Your task to perform on an android device: turn on sleep mode Image 0: 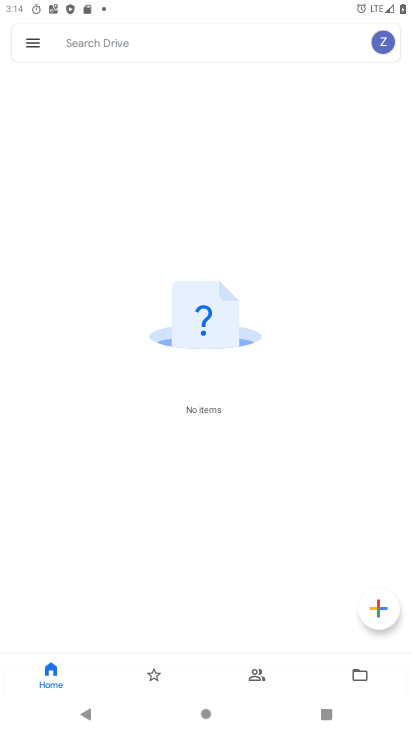
Step 0: press home button
Your task to perform on an android device: turn on sleep mode Image 1: 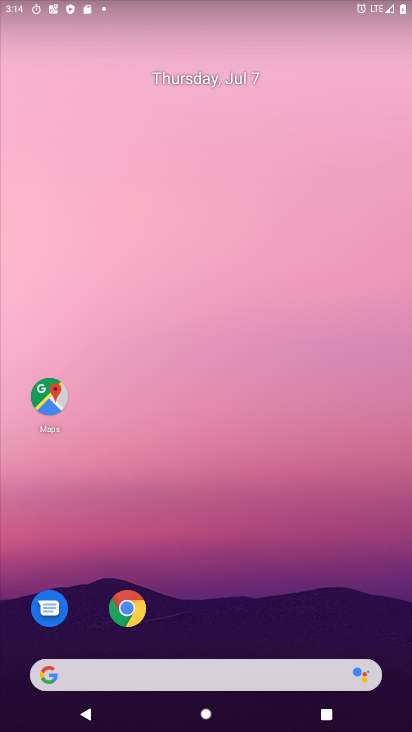
Step 1: drag from (252, 728) to (207, 145)
Your task to perform on an android device: turn on sleep mode Image 2: 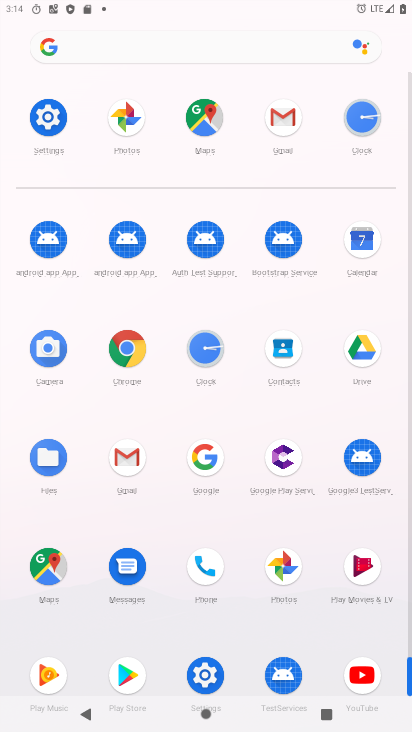
Step 2: click (47, 112)
Your task to perform on an android device: turn on sleep mode Image 3: 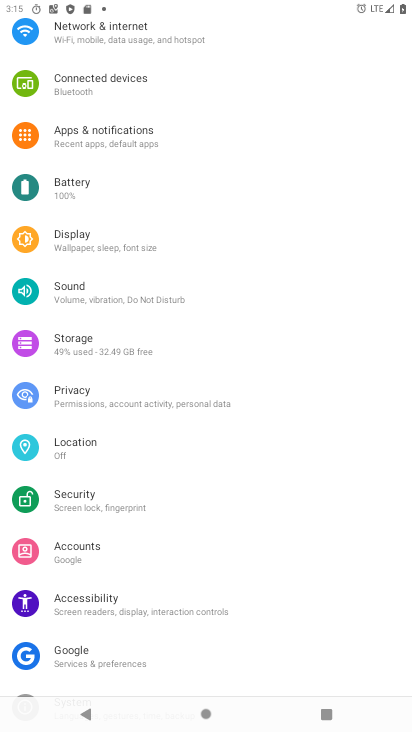
Step 3: click (82, 34)
Your task to perform on an android device: turn on sleep mode Image 4: 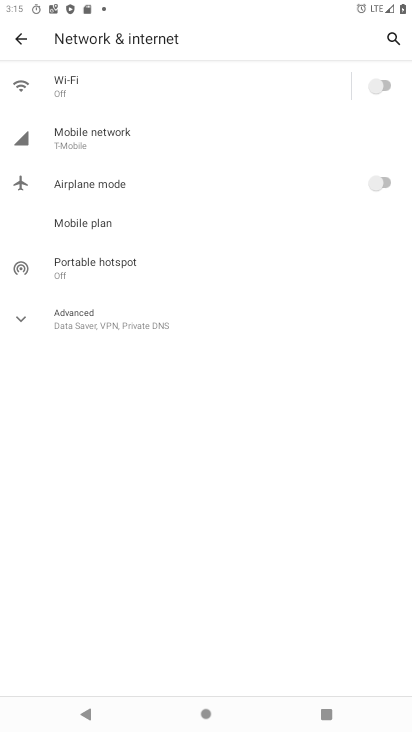
Step 4: click (23, 37)
Your task to perform on an android device: turn on sleep mode Image 5: 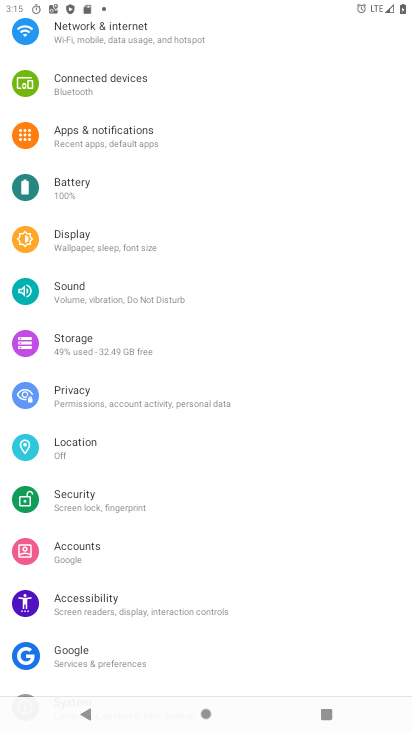
Step 5: click (111, 244)
Your task to perform on an android device: turn on sleep mode Image 6: 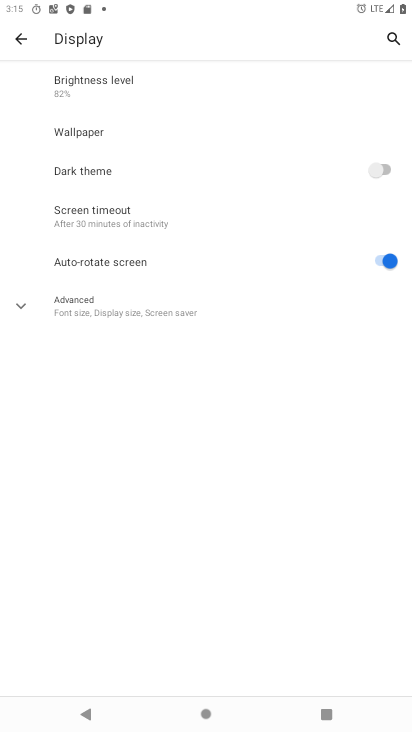
Step 6: task complete